Your task to perform on an android device: Search for lg ultragear on ebay.com, select the first entry, add it to the cart, then select checkout. Image 0: 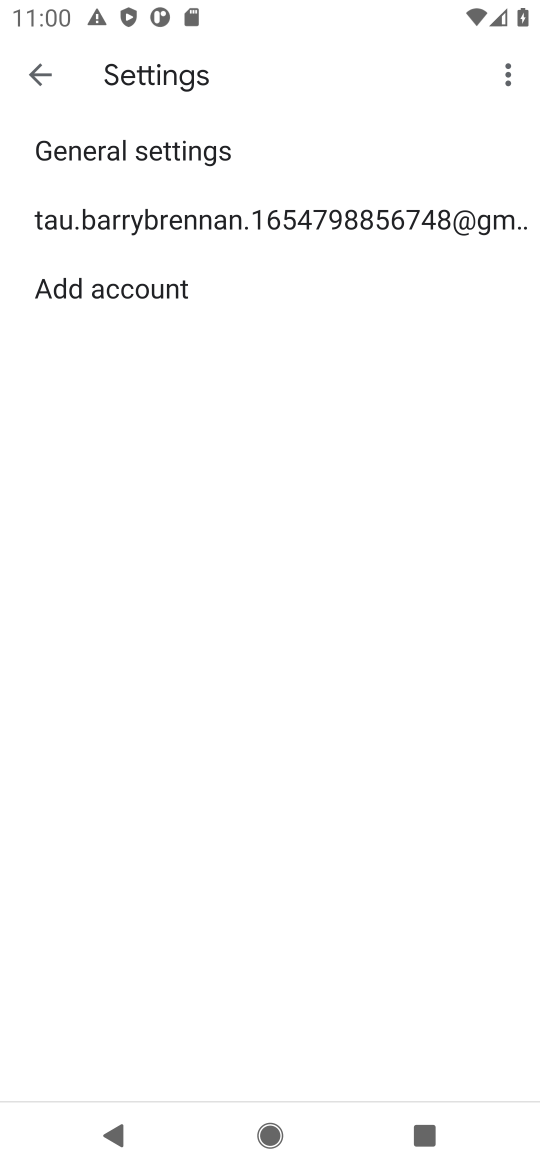
Step 0: task complete